Your task to perform on an android device: turn off smart reply in the gmail app Image 0: 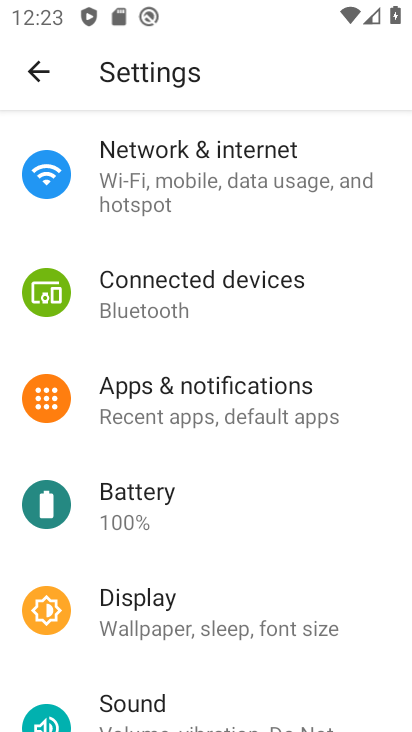
Step 0: press home button
Your task to perform on an android device: turn off smart reply in the gmail app Image 1: 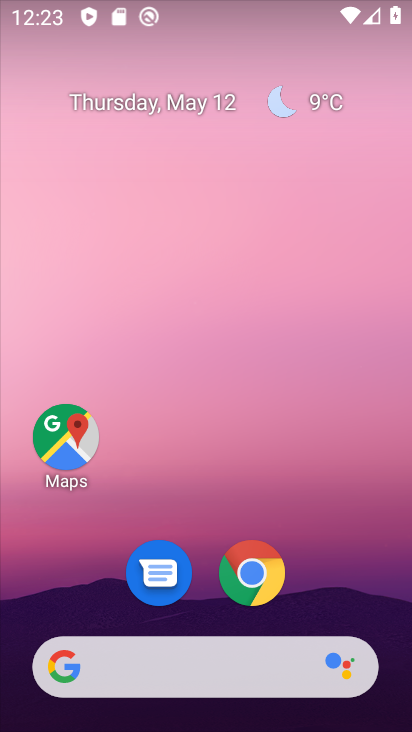
Step 1: drag from (217, 609) to (244, 7)
Your task to perform on an android device: turn off smart reply in the gmail app Image 2: 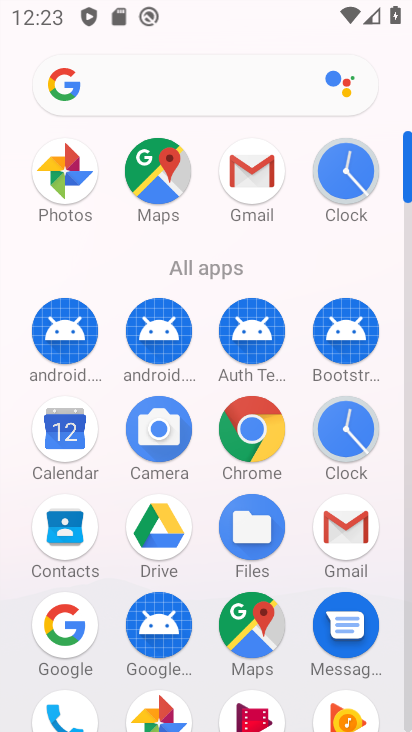
Step 2: click (338, 524)
Your task to perform on an android device: turn off smart reply in the gmail app Image 3: 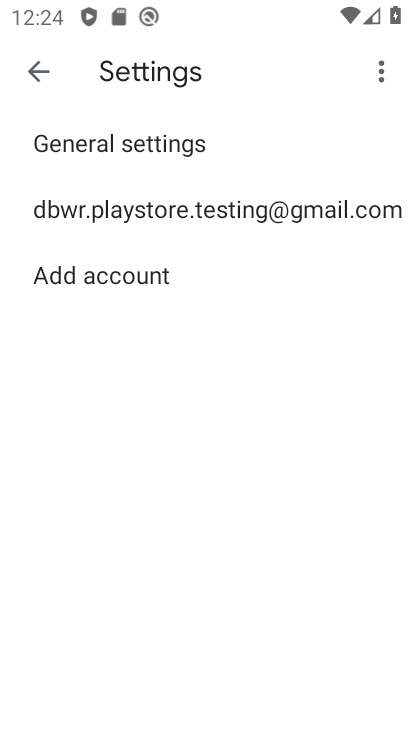
Step 3: click (150, 213)
Your task to perform on an android device: turn off smart reply in the gmail app Image 4: 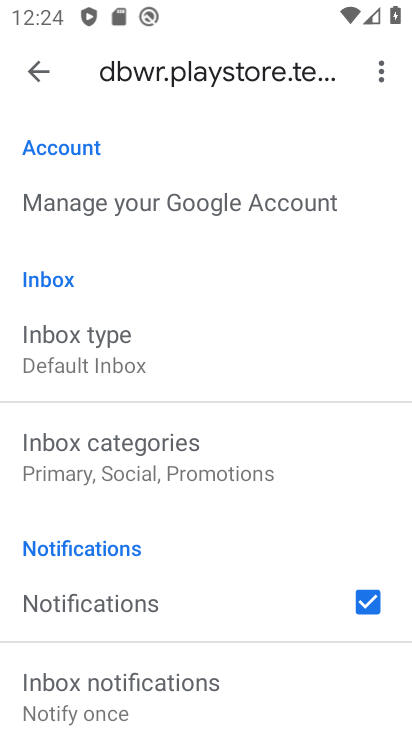
Step 4: drag from (172, 573) to (221, 258)
Your task to perform on an android device: turn off smart reply in the gmail app Image 5: 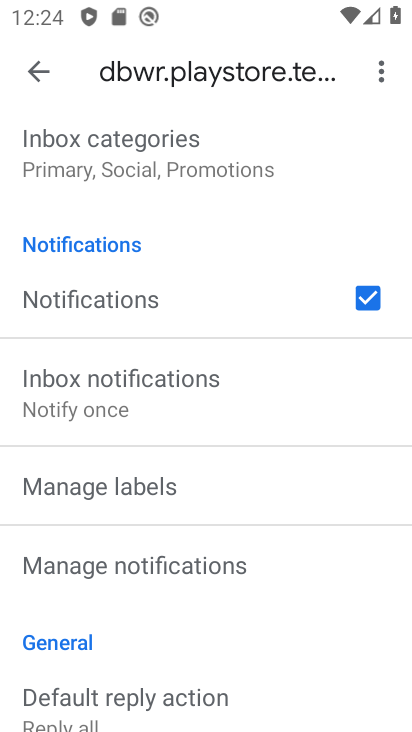
Step 5: drag from (139, 608) to (204, 36)
Your task to perform on an android device: turn off smart reply in the gmail app Image 6: 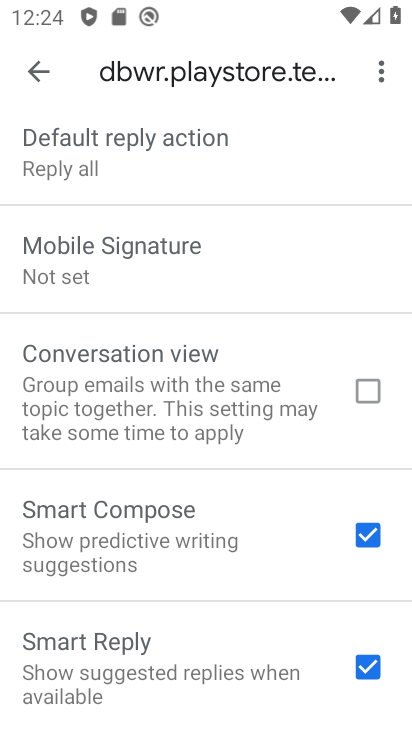
Step 6: drag from (265, 631) to (294, 327)
Your task to perform on an android device: turn off smart reply in the gmail app Image 7: 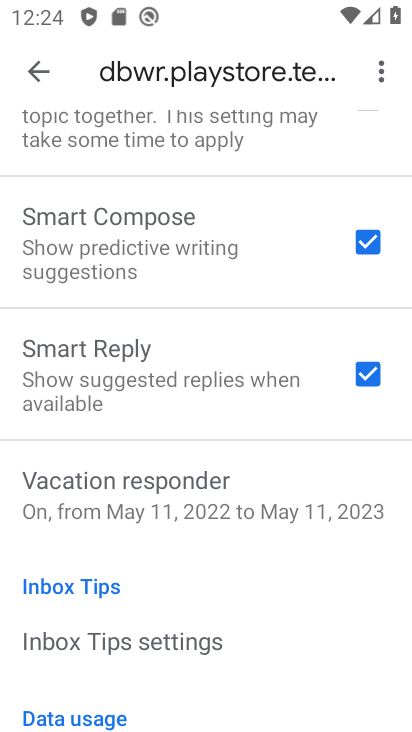
Step 7: click (349, 379)
Your task to perform on an android device: turn off smart reply in the gmail app Image 8: 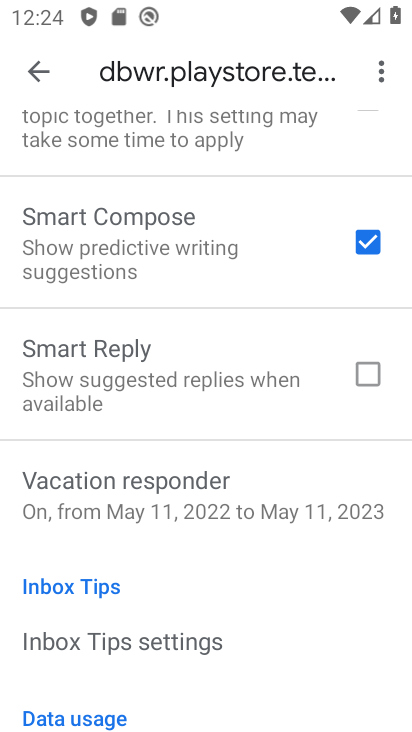
Step 8: task complete